Your task to perform on an android device: Go to Maps Image 0: 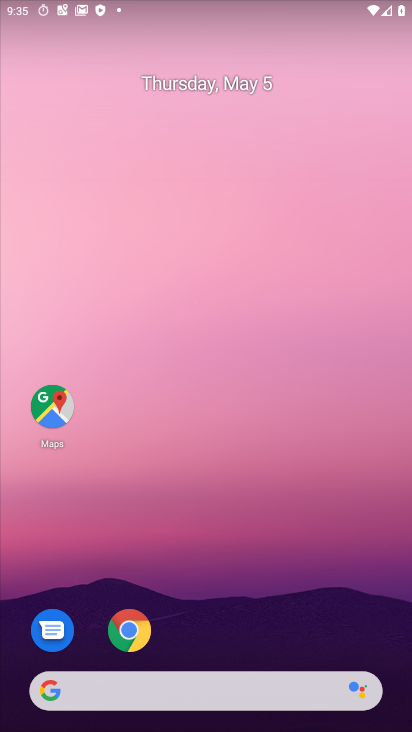
Step 0: click (55, 407)
Your task to perform on an android device: Go to Maps Image 1: 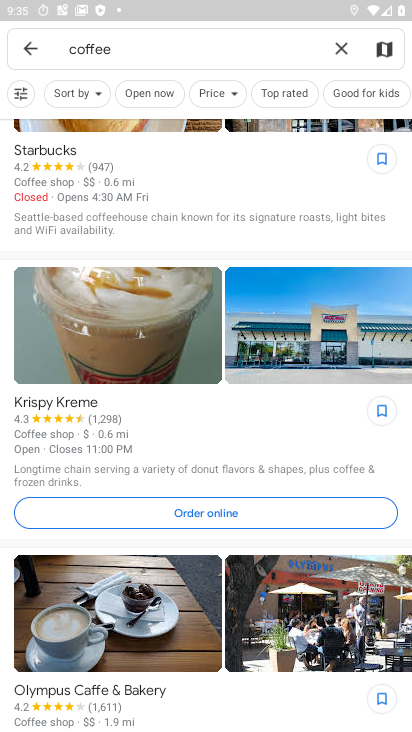
Step 1: task complete